Your task to perform on an android device: How much does a3 bedroom apartment rent for in Portland? Image 0: 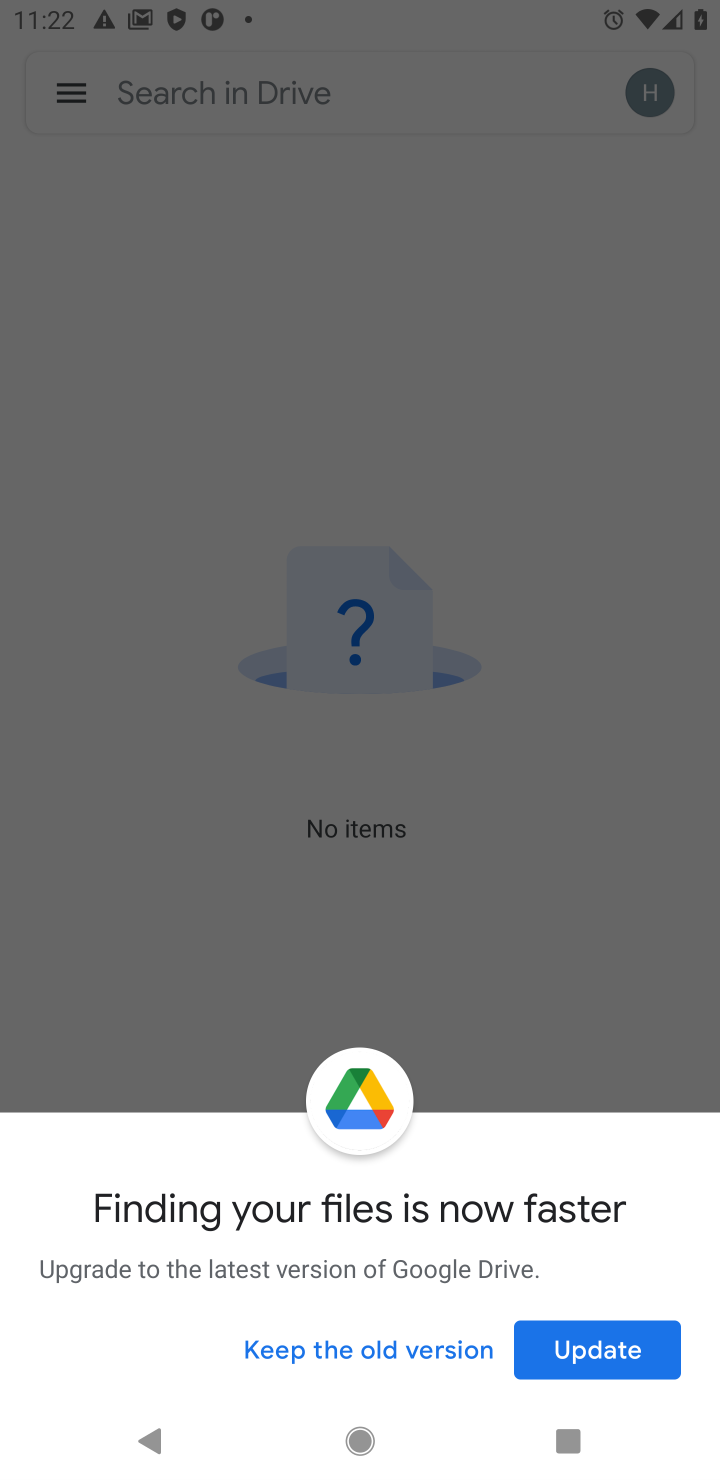
Step 0: press home button
Your task to perform on an android device: How much does a3 bedroom apartment rent for in Portland? Image 1: 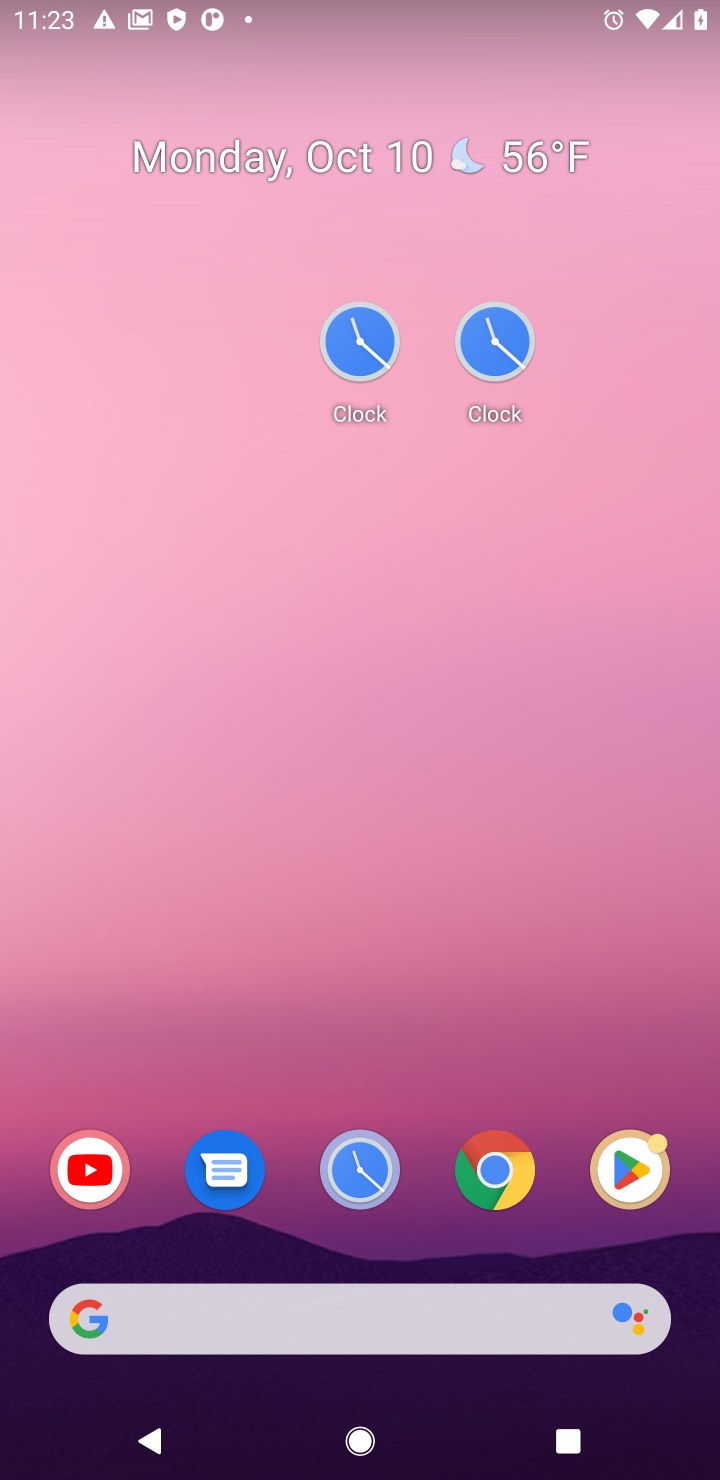
Step 1: drag from (410, 1312) to (485, 751)
Your task to perform on an android device: How much does a3 bedroom apartment rent for in Portland? Image 2: 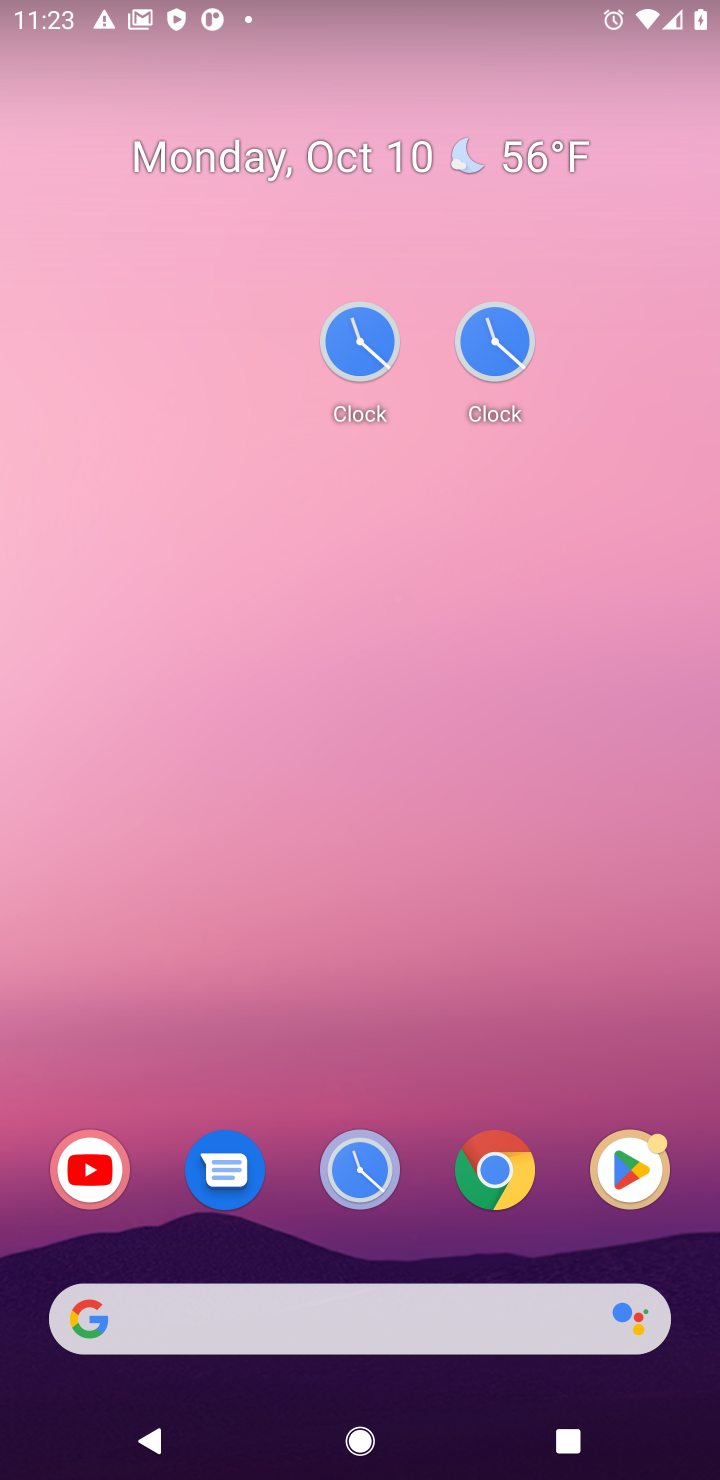
Step 2: drag from (445, 1204) to (498, 153)
Your task to perform on an android device: How much does a3 bedroom apartment rent for in Portland? Image 3: 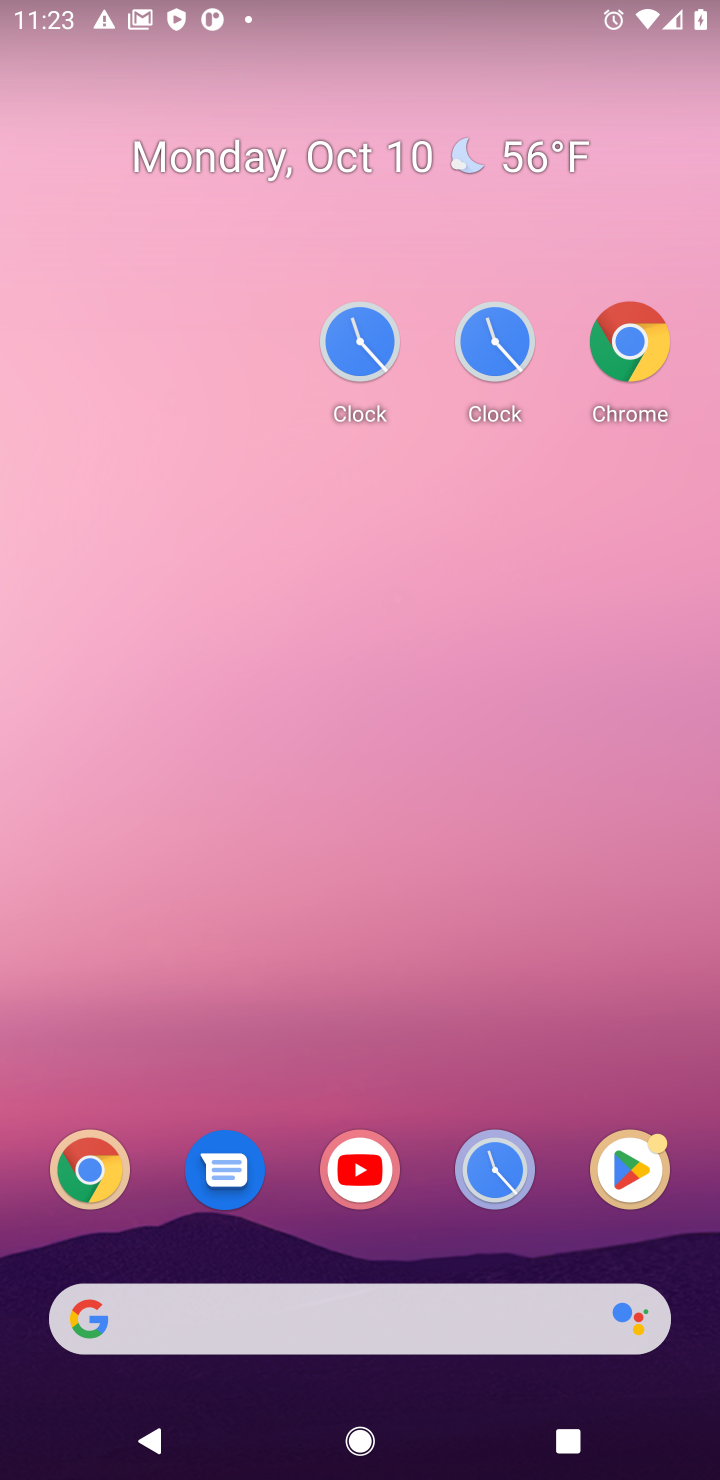
Step 3: drag from (454, 1224) to (485, 0)
Your task to perform on an android device: How much does a3 bedroom apartment rent for in Portland? Image 4: 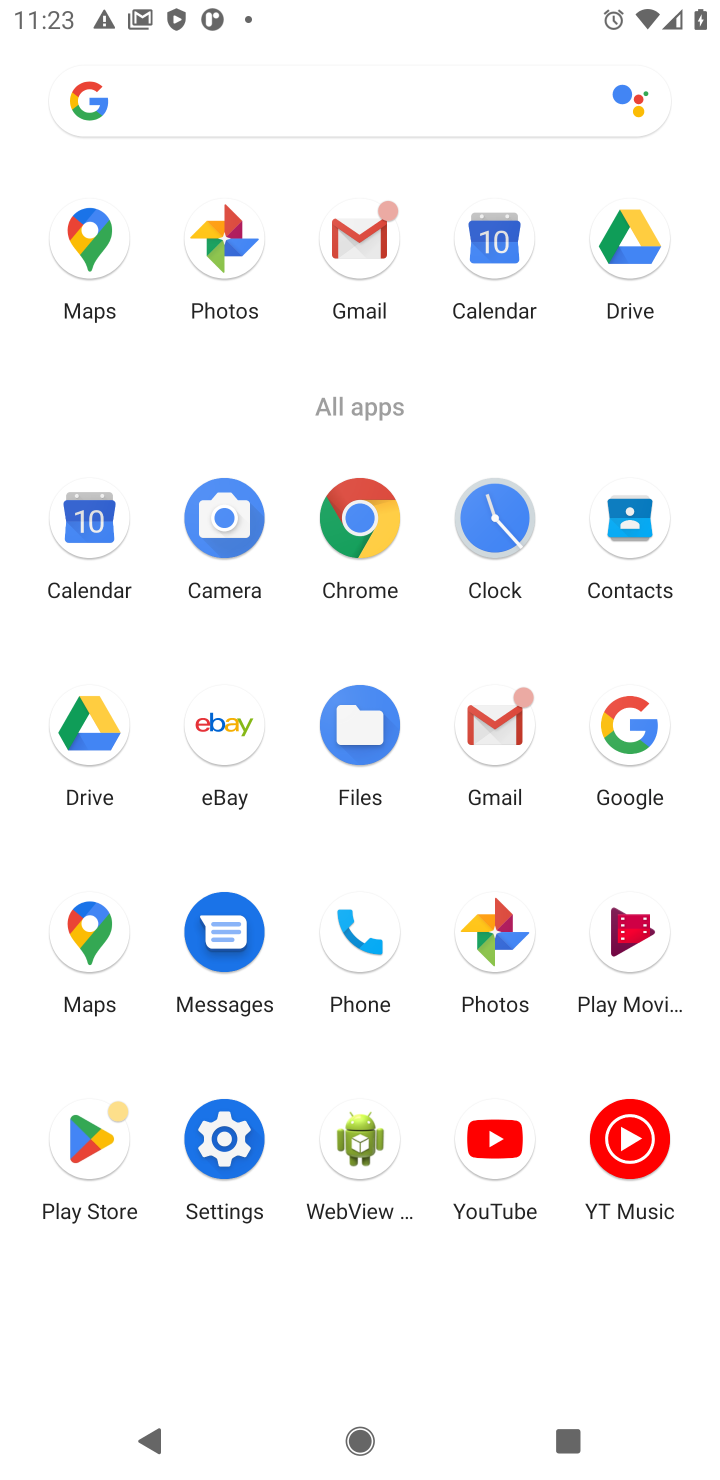
Step 4: click (661, 725)
Your task to perform on an android device: How much does a3 bedroom apartment rent for in Portland? Image 5: 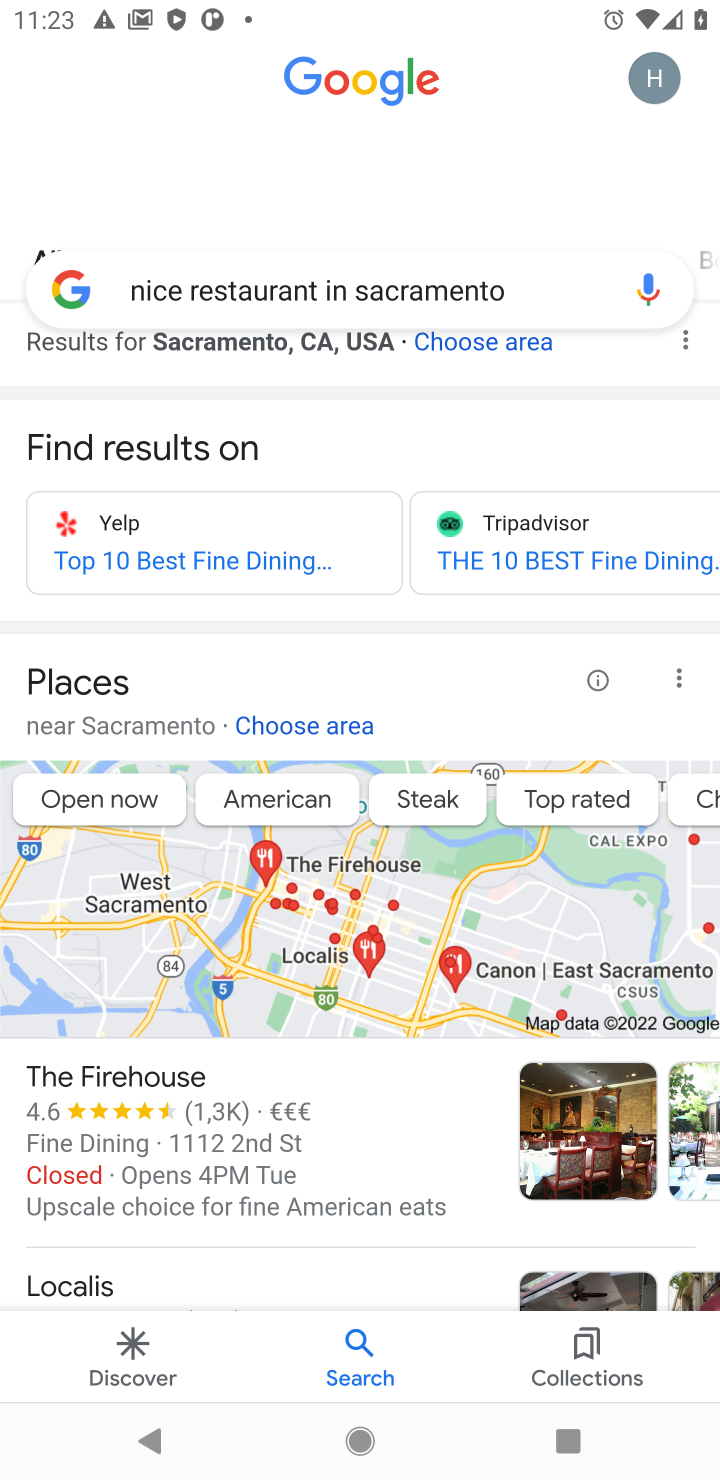
Step 5: click (486, 286)
Your task to perform on an android device: How much does a3 bedroom apartment rent for in Portland? Image 6: 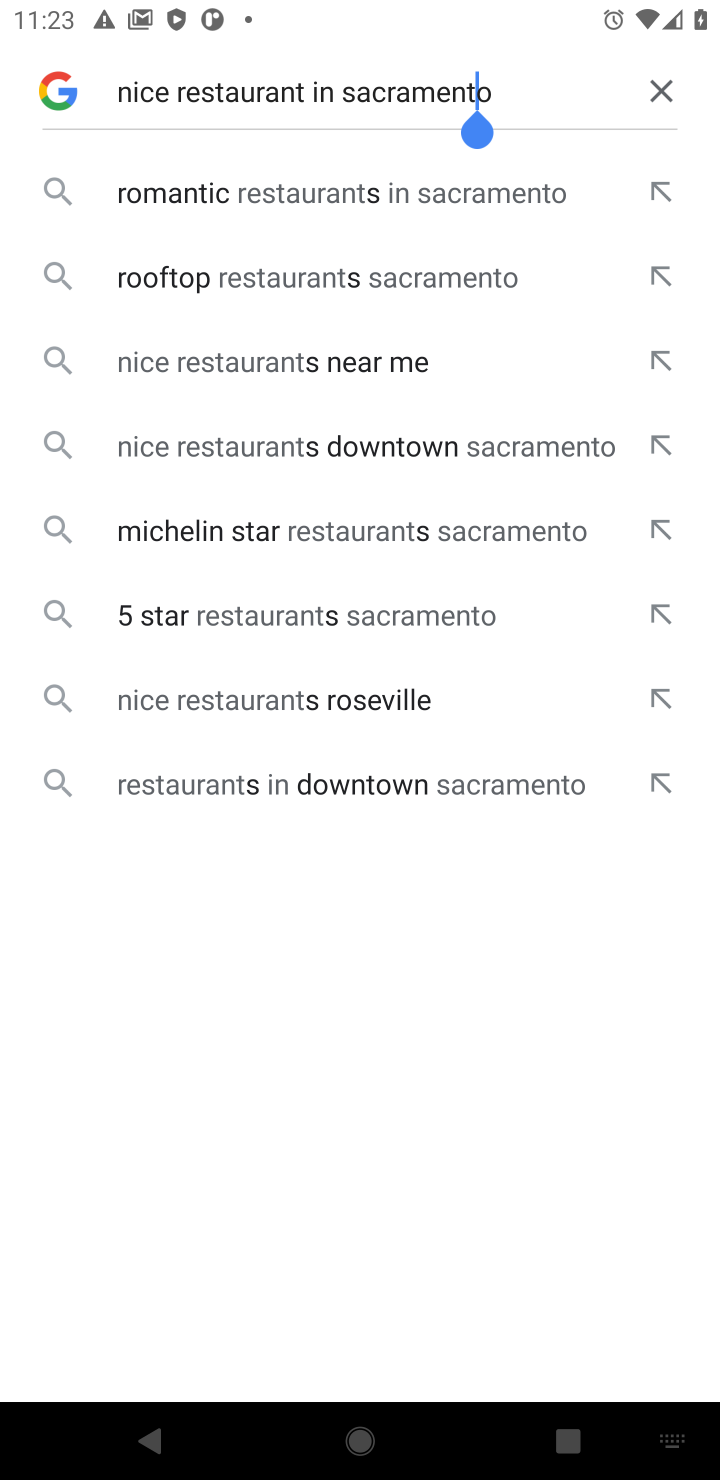
Step 6: click (667, 101)
Your task to perform on an android device: How much does a3 bedroom apartment rent for in Portland? Image 7: 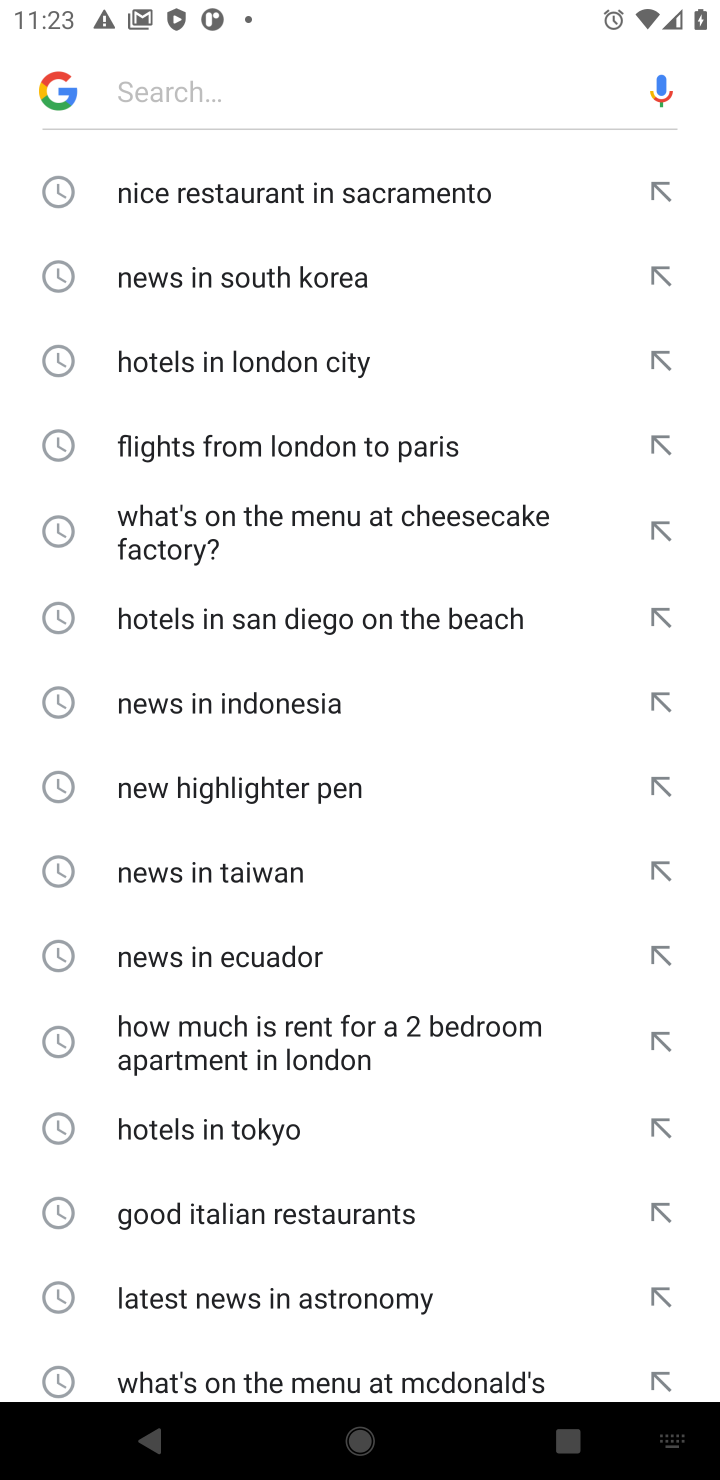
Step 7: type "How much does a3 bedroom apartment rent for in Portland?"
Your task to perform on an android device: How much does a3 bedroom apartment rent for in Portland? Image 8: 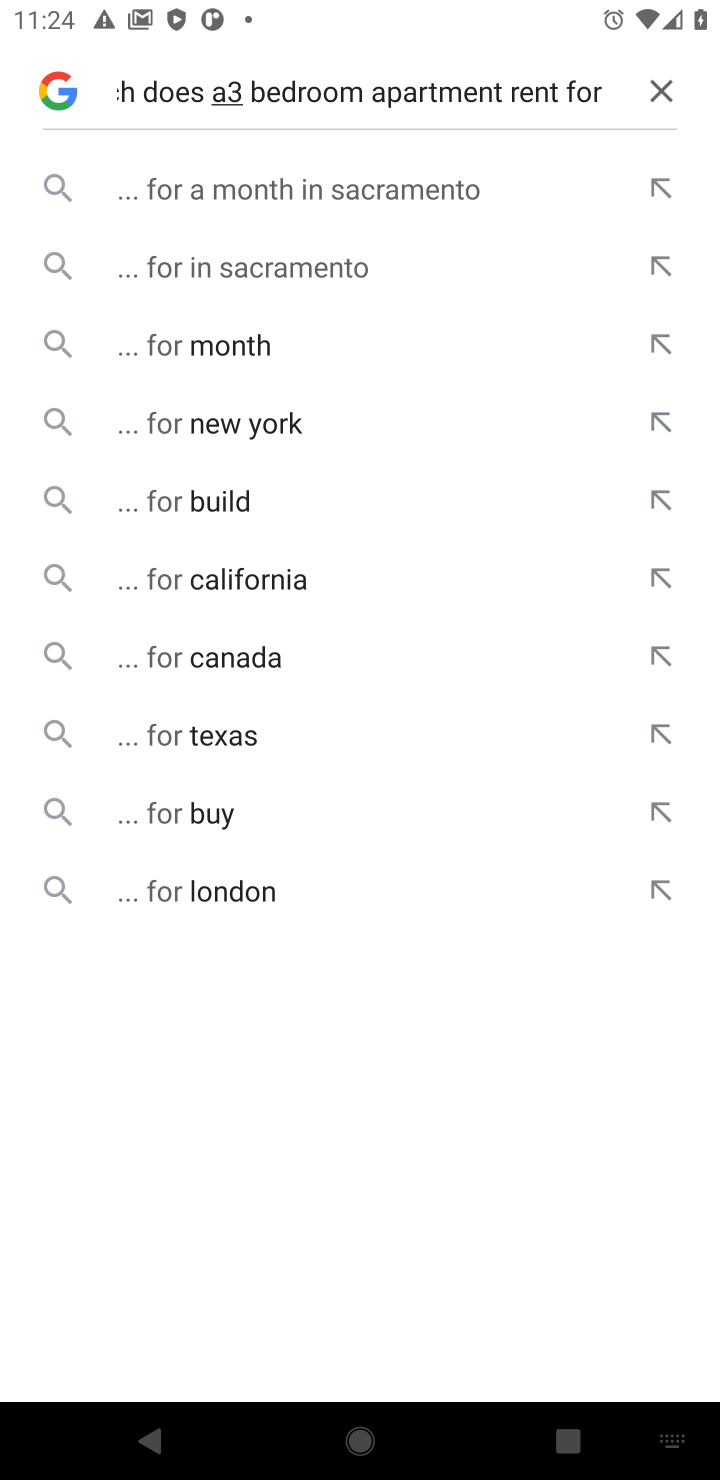
Step 8: click (484, 182)
Your task to perform on an android device: How much does a3 bedroom apartment rent for in Portland? Image 9: 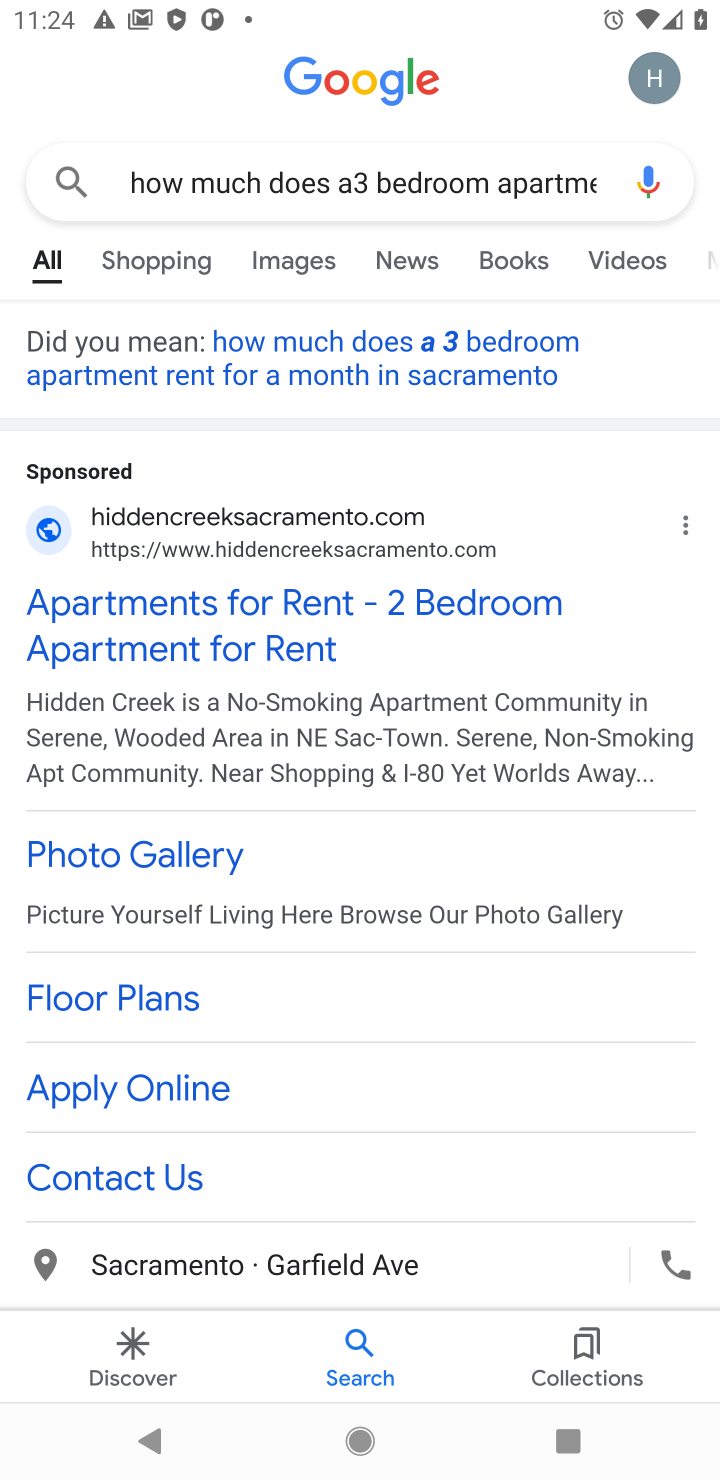
Step 9: task complete